Your task to perform on an android device: Open the stopwatch Image 0: 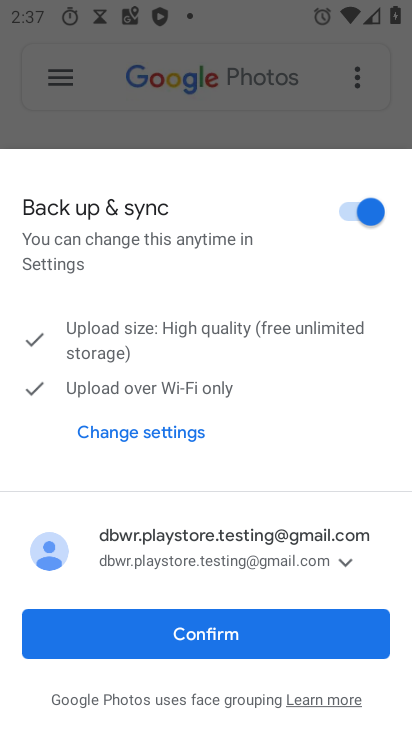
Step 0: press home button
Your task to perform on an android device: Open the stopwatch Image 1: 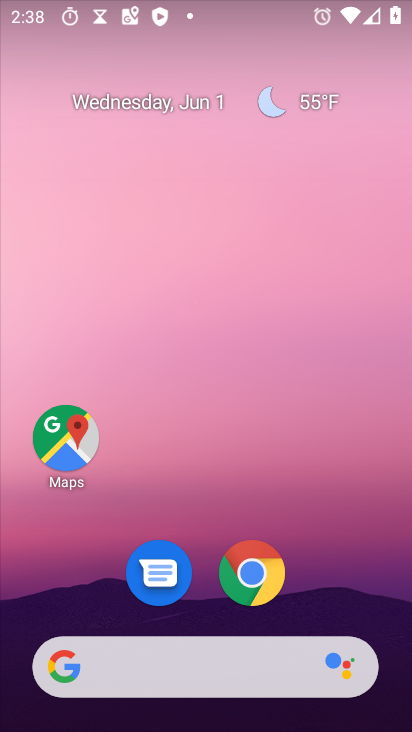
Step 1: drag from (343, 476) to (318, 5)
Your task to perform on an android device: Open the stopwatch Image 2: 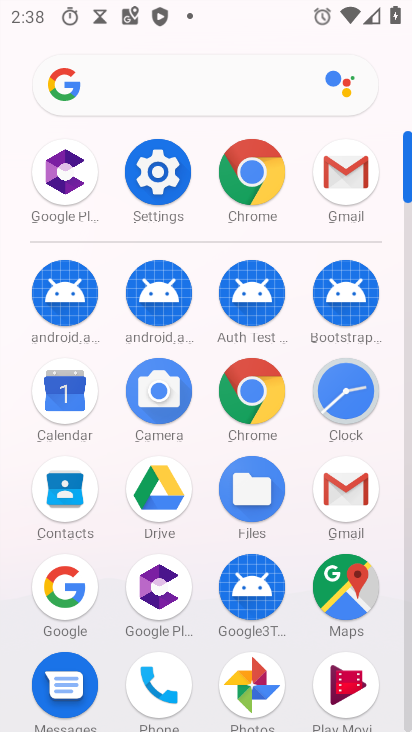
Step 2: click (341, 393)
Your task to perform on an android device: Open the stopwatch Image 3: 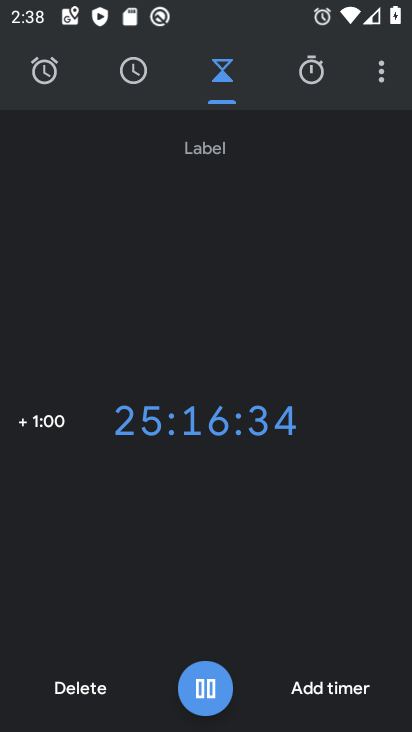
Step 3: click (314, 76)
Your task to perform on an android device: Open the stopwatch Image 4: 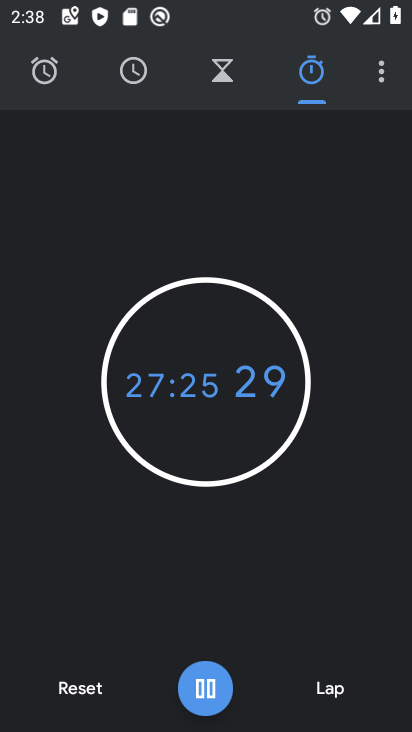
Step 4: task complete